Your task to perform on an android device: Open accessibility settings Image 0: 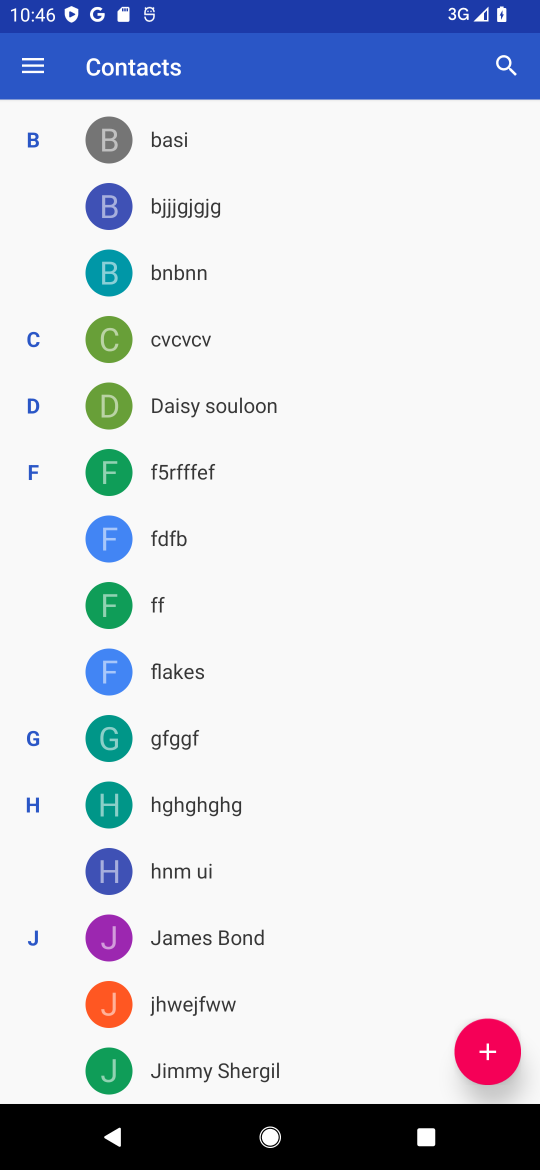
Step 0: press home button
Your task to perform on an android device: Open accessibility settings Image 1: 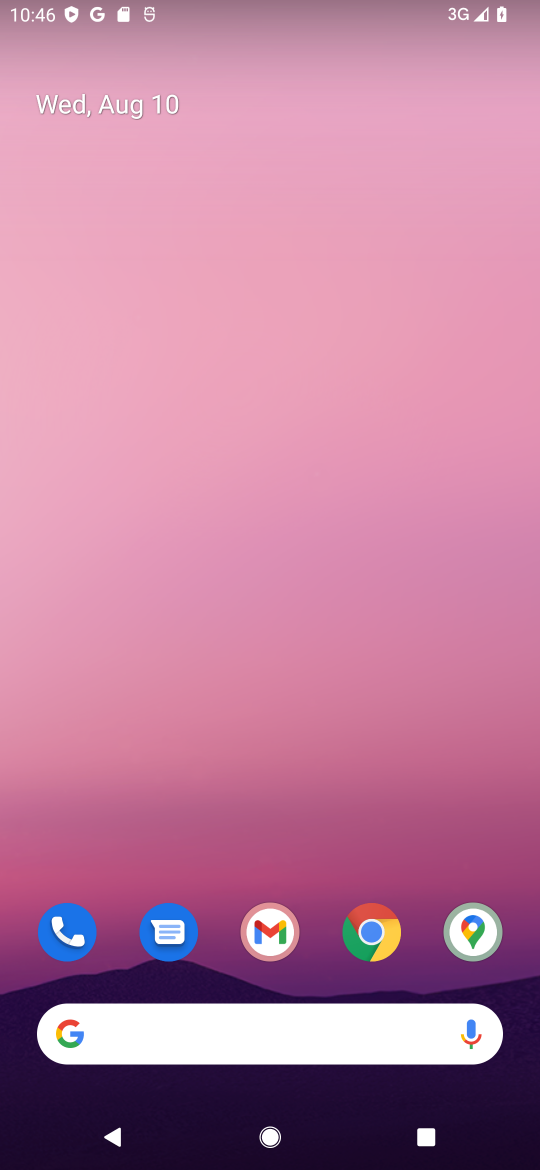
Step 1: drag from (318, 441) to (318, 46)
Your task to perform on an android device: Open accessibility settings Image 2: 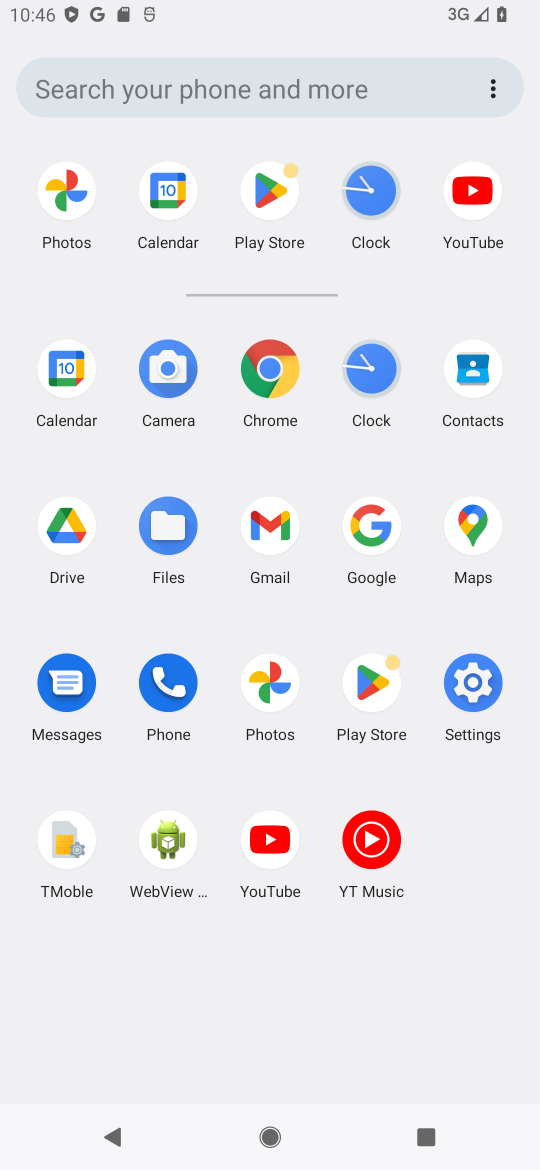
Step 2: click (467, 675)
Your task to perform on an android device: Open accessibility settings Image 3: 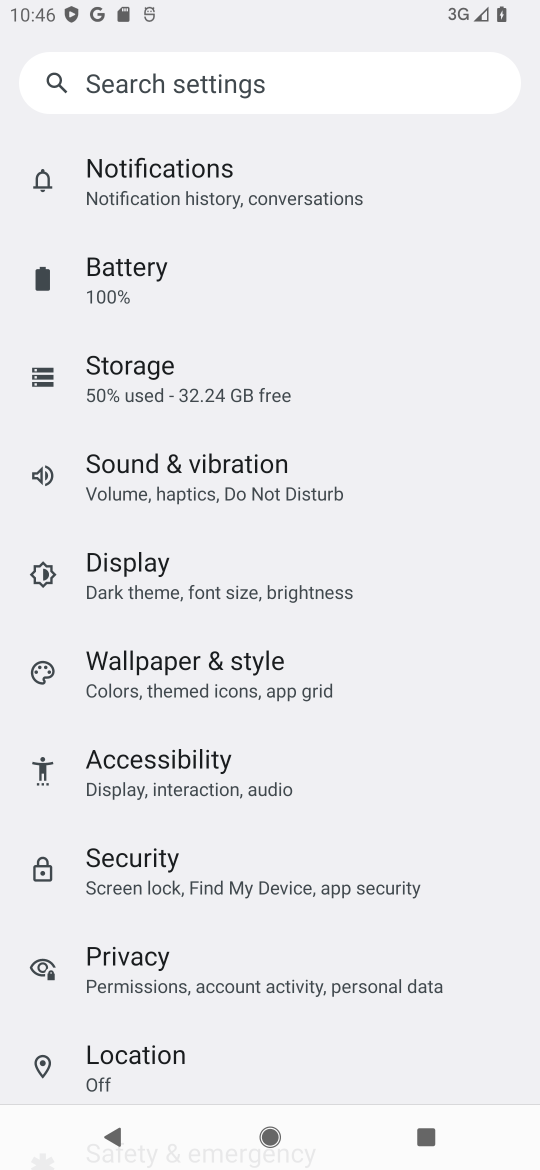
Step 3: click (186, 756)
Your task to perform on an android device: Open accessibility settings Image 4: 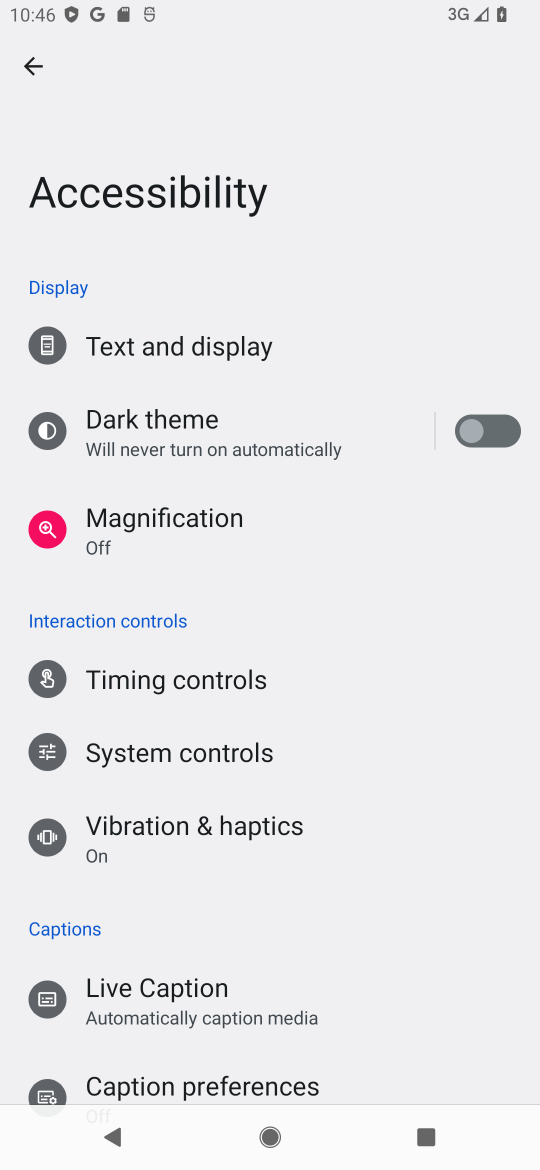
Step 4: task complete